Your task to perform on an android device: Go to ESPN.com Image 0: 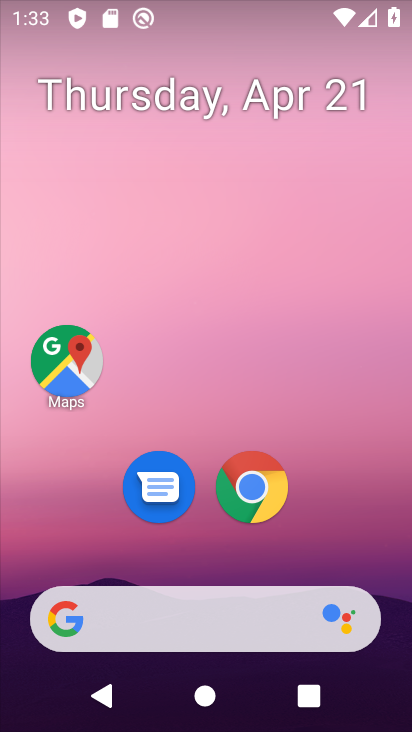
Step 0: drag from (199, 537) to (217, 396)
Your task to perform on an android device: Go to ESPN.com Image 1: 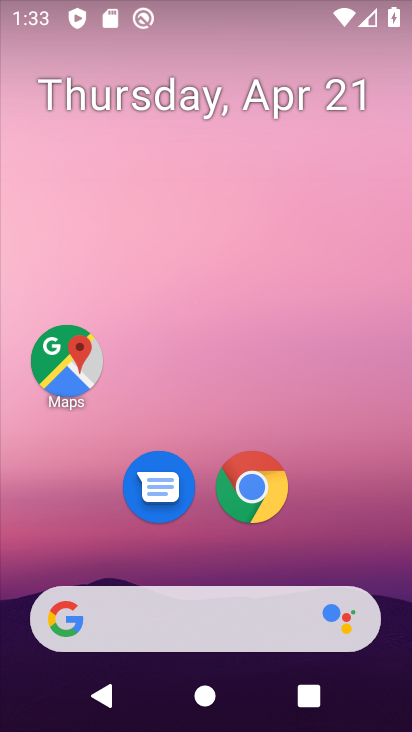
Step 1: drag from (219, 566) to (221, 247)
Your task to perform on an android device: Go to ESPN.com Image 2: 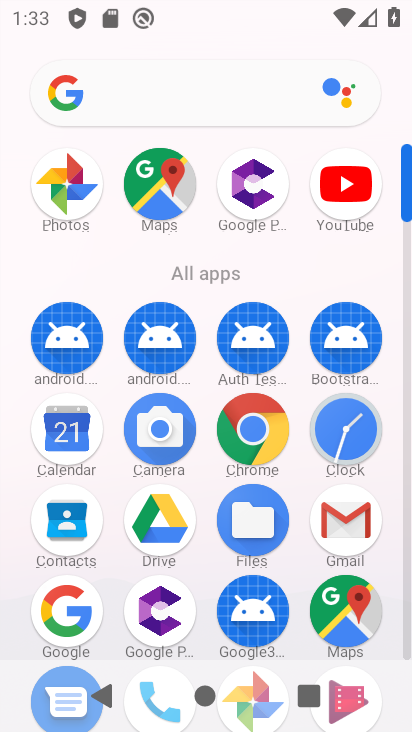
Step 2: click (261, 424)
Your task to perform on an android device: Go to ESPN.com Image 3: 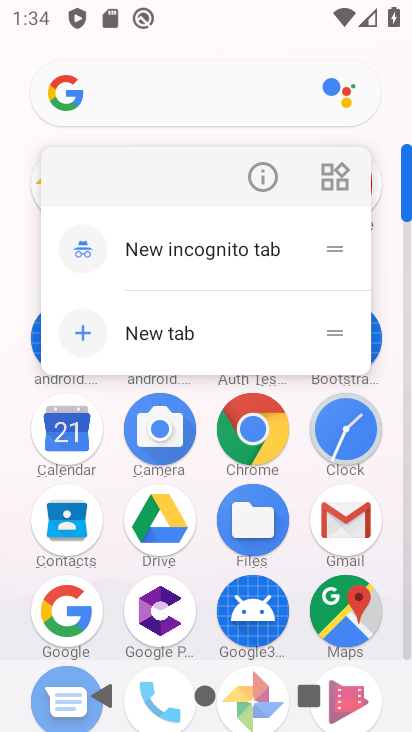
Step 3: click (261, 178)
Your task to perform on an android device: Go to ESPN.com Image 4: 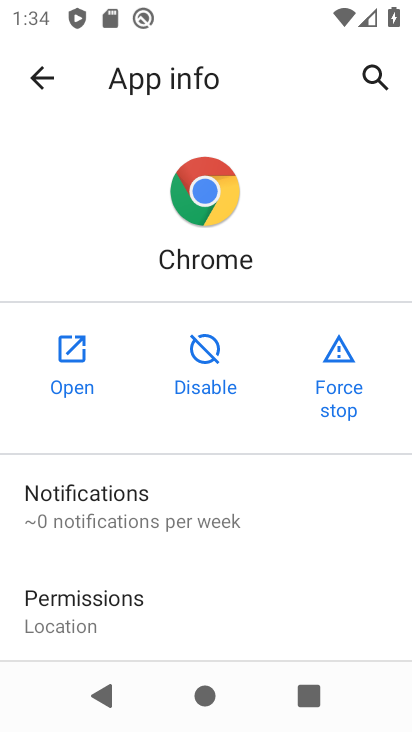
Step 4: click (79, 382)
Your task to perform on an android device: Go to ESPN.com Image 5: 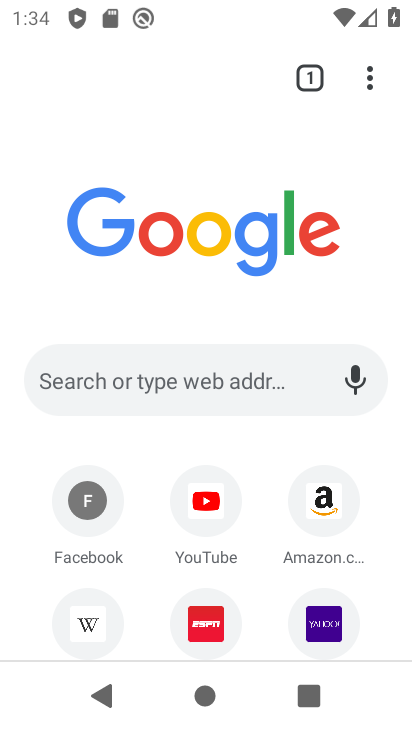
Step 5: drag from (275, 575) to (308, 256)
Your task to perform on an android device: Go to ESPN.com Image 6: 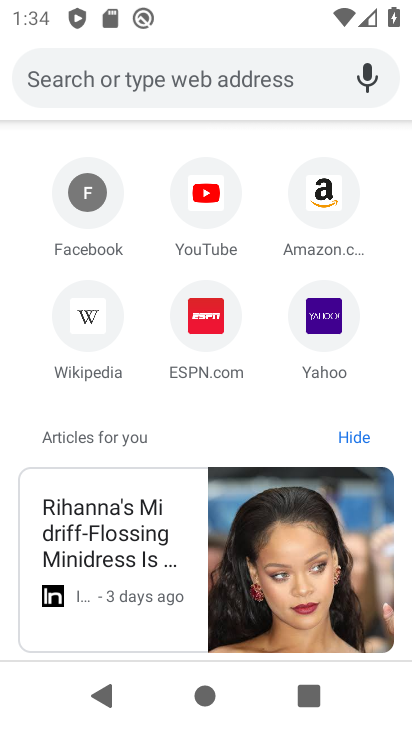
Step 6: click (220, 325)
Your task to perform on an android device: Go to ESPN.com Image 7: 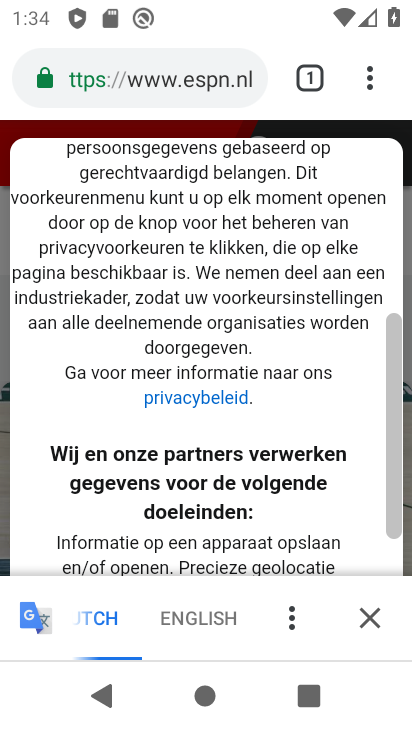
Step 7: drag from (268, 415) to (364, 126)
Your task to perform on an android device: Go to ESPN.com Image 8: 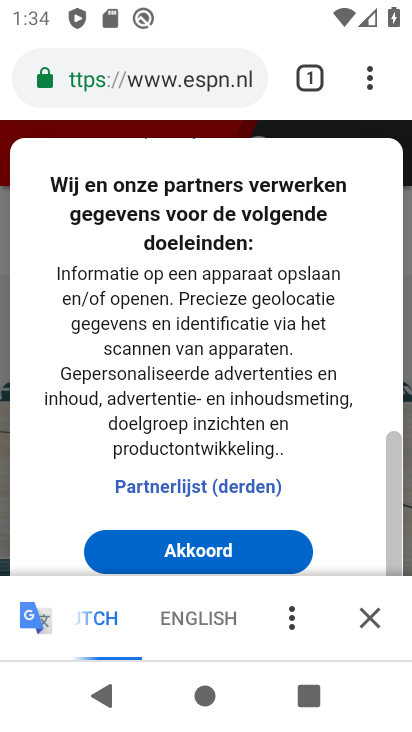
Step 8: drag from (269, 500) to (316, 237)
Your task to perform on an android device: Go to ESPN.com Image 9: 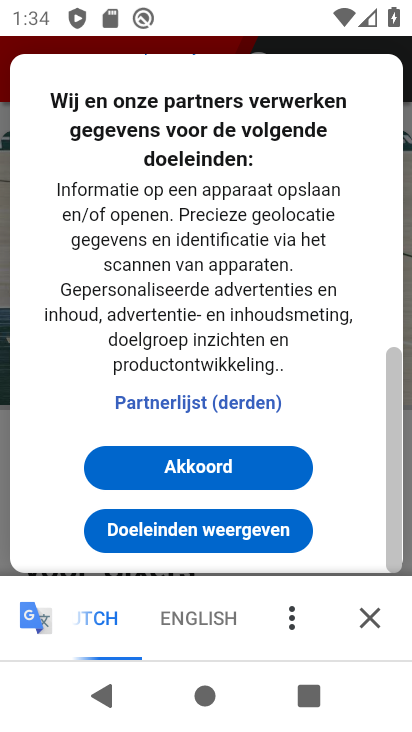
Step 9: click (191, 475)
Your task to perform on an android device: Go to ESPN.com Image 10: 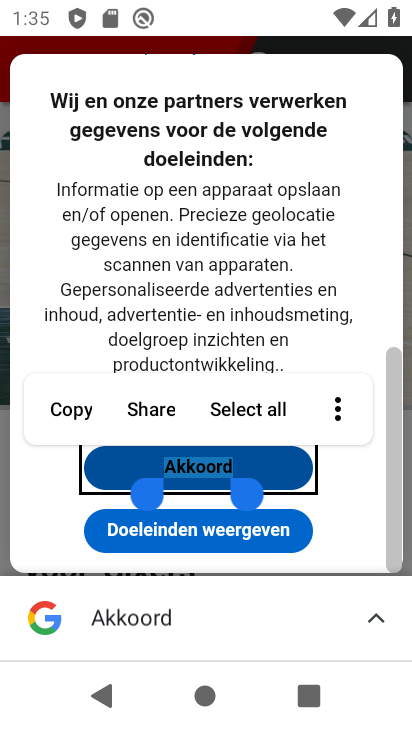
Step 10: drag from (304, 203) to (270, 416)
Your task to perform on an android device: Go to ESPN.com Image 11: 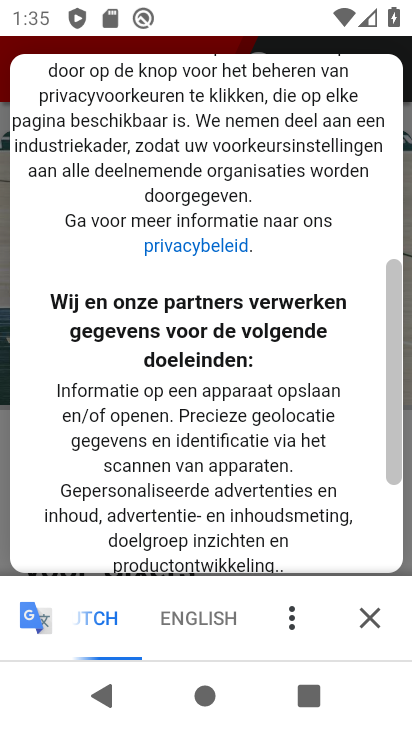
Step 11: click (132, 474)
Your task to perform on an android device: Go to ESPN.com Image 12: 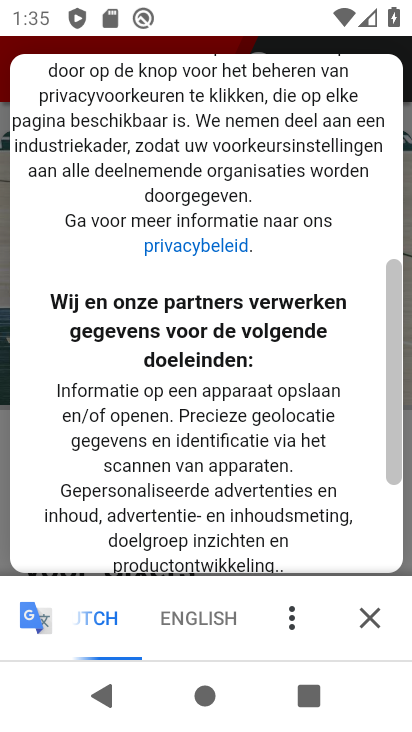
Step 12: task complete